Your task to perform on an android device: change the clock display to analog Image 0: 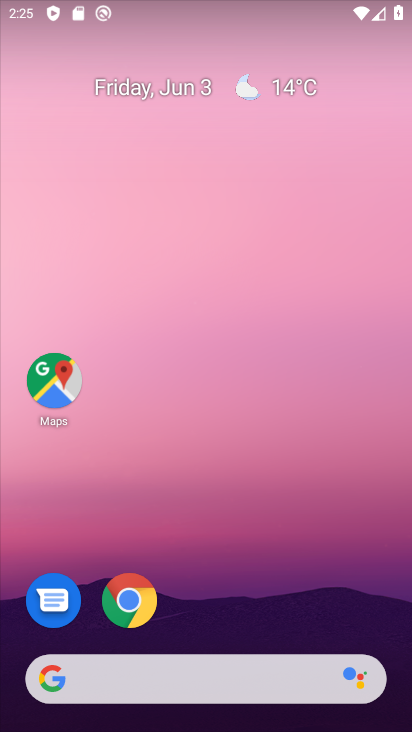
Step 0: drag from (248, 579) to (202, 2)
Your task to perform on an android device: change the clock display to analog Image 1: 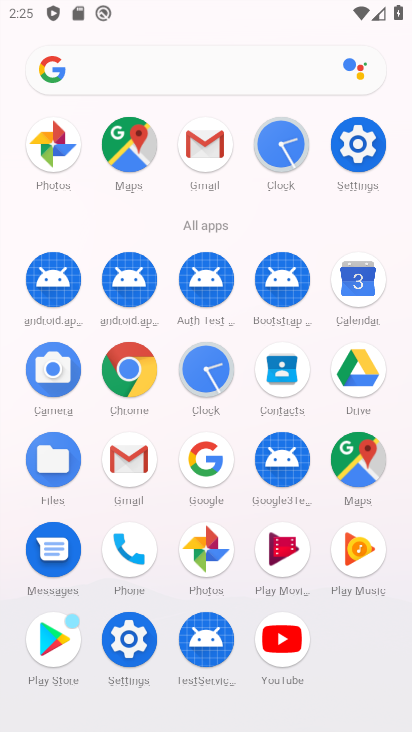
Step 1: drag from (17, 511) to (17, 165)
Your task to perform on an android device: change the clock display to analog Image 2: 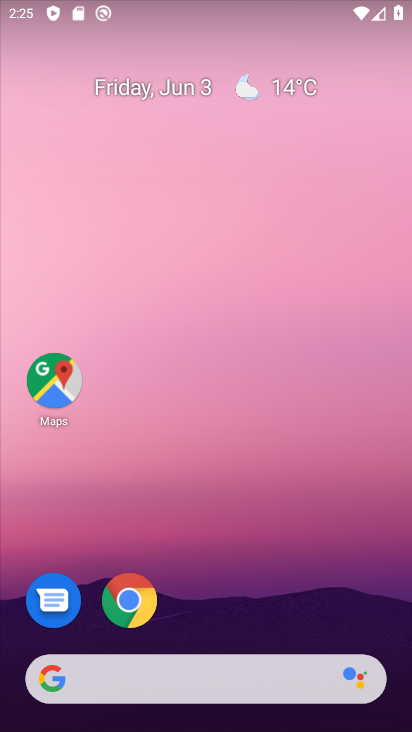
Step 2: drag from (352, 406) to (295, 27)
Your task to perform on an android device: change the clock display to analog Image 3: 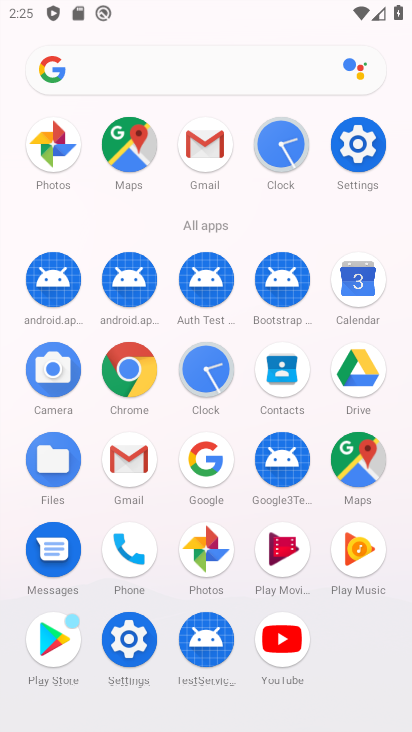
Step 3: click (208, 368)
Your task to perform on an android device: change the clock display to analog Image 4: 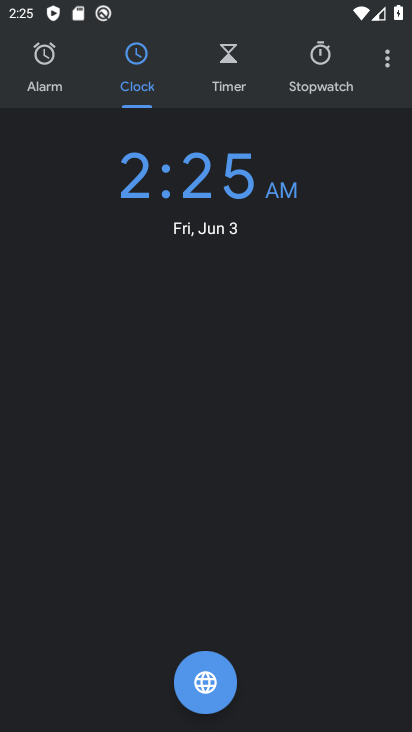
Step 4: drag from (386, 60) to (279, 109)
Your task to perform on an android device: change the clock display to analog Image 5: 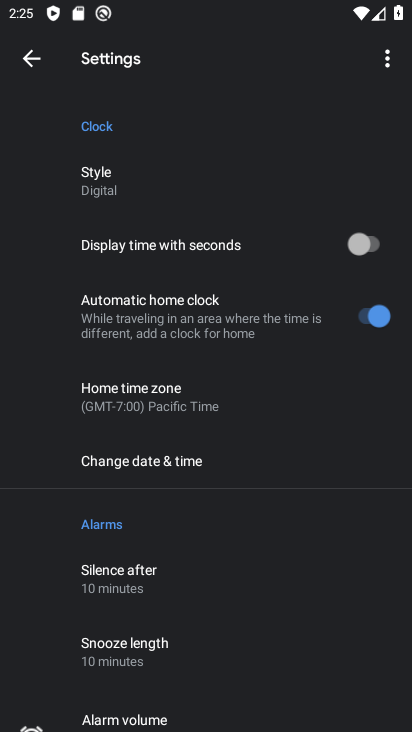
Step 5: click (95, 180)
Your task to perform on an android device: change the clock display to analog Image 6: 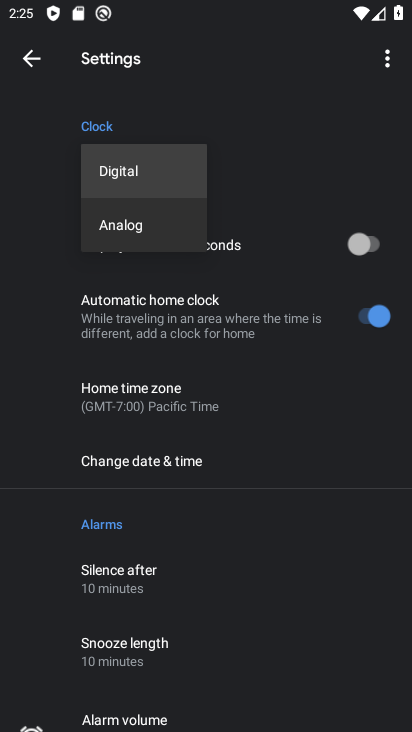
Step 6: click (126, 229)
Your task to perform on an android device: change the clock display to analog Image 7: 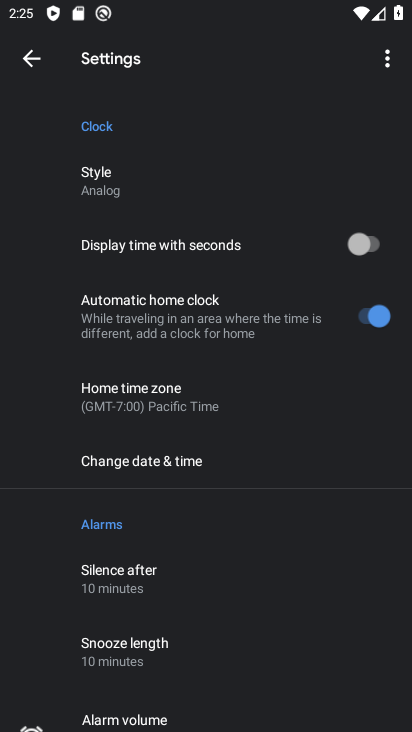
Step 7: task complete